Your task to perform on an android device: Go to Google maps Image 0: 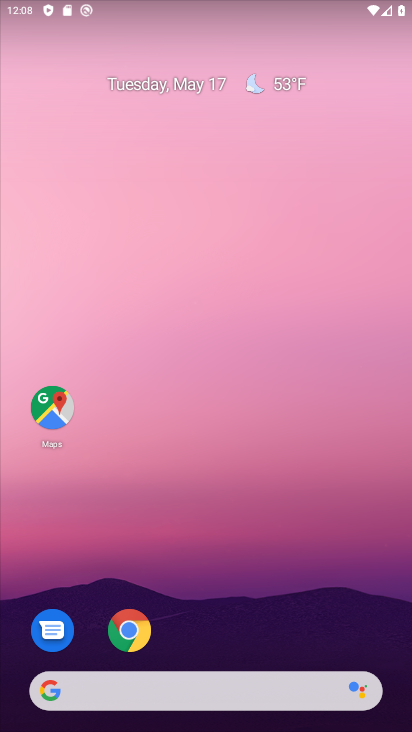
Step 0: drag from (206, 611) to (206, 216)
Your task to perform on an android device: Go to Google maps Image 1: 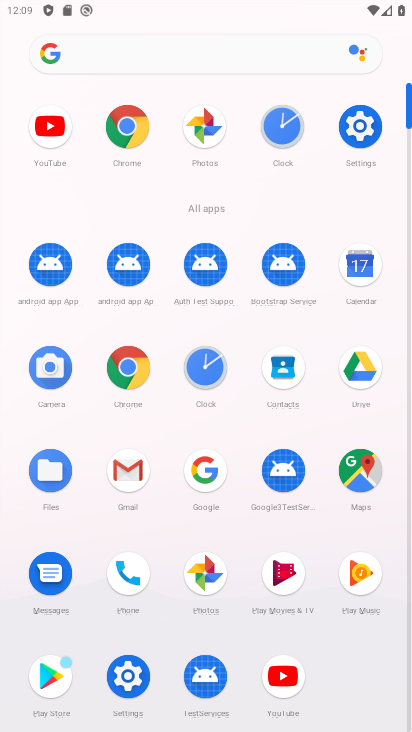
Step 1: click (362, 479)
Your task to perform on an android device: Go to Google maps Image 2: 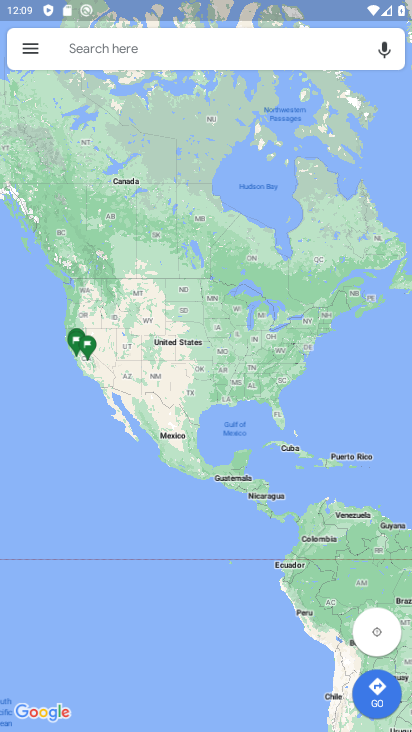
Step 2: task complete